Your task to perform on an android device: Go to Yahoo.com Image 0: 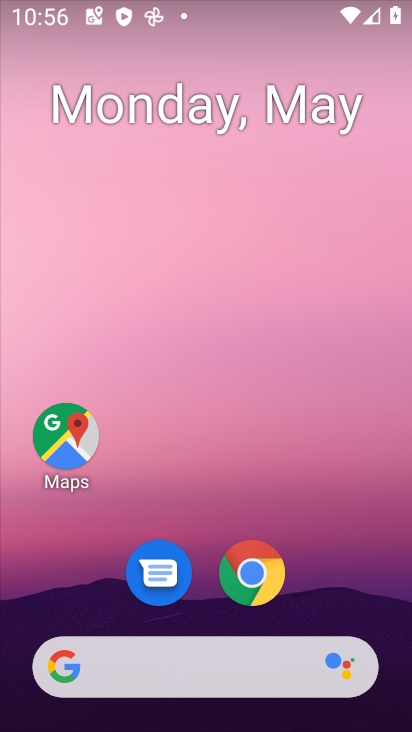
Step 0: click (189, 684)
Your task to perform on an android device: Go to Yahoo.com Image 1: 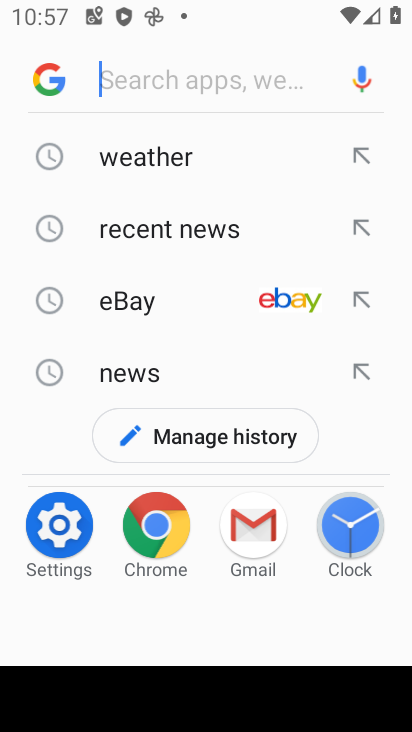
Step 1: type "yahoo.com"
Your task to perform on an android device: Go to Yahoo.com Image 2: 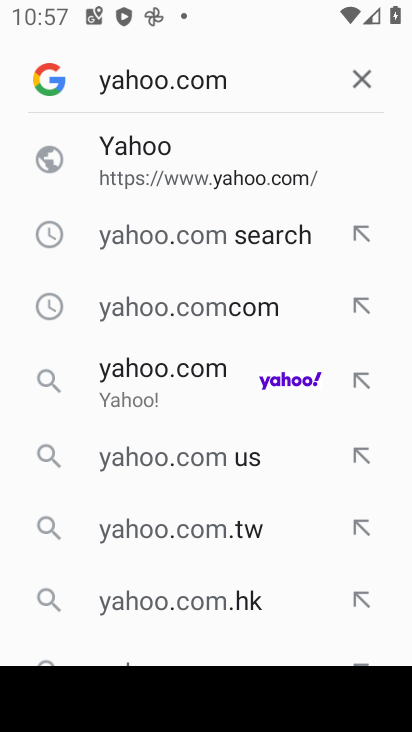
Step 2: click (189, 161)
Your task to perform on an android device: Go to Yahoo.com Image 3: 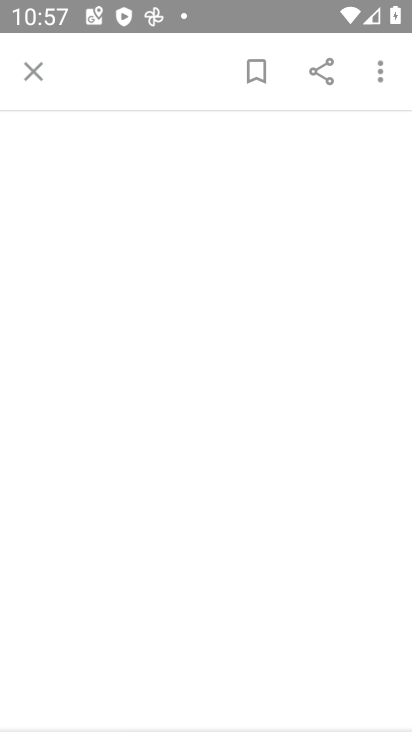
Step 3: task complete